Your task to perform on an android device: Go to notification settings Image 0: 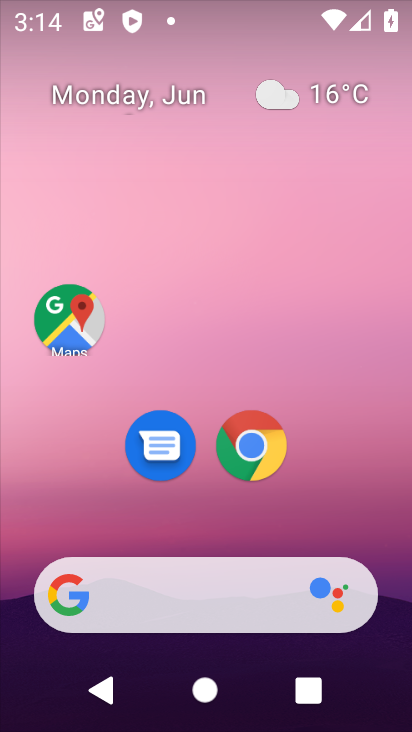
Step 0: drag from (201, 524) to (194, 196)
Your task to perform on an android device: Go to notification settings Image 1: 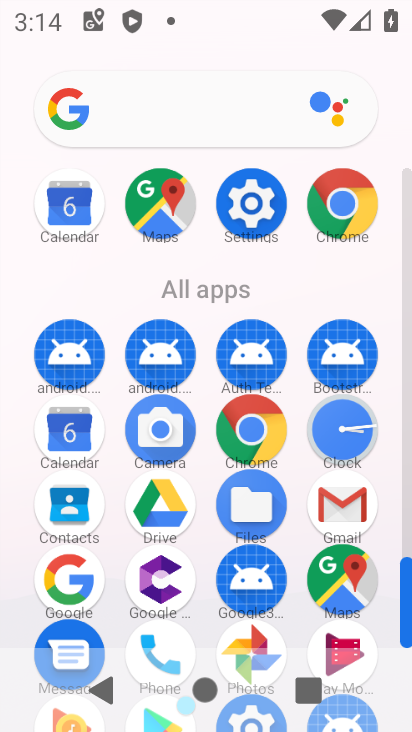
Step 1: click (238, 200)
Your task to perform on an android device: Go to notification settings Image 2: 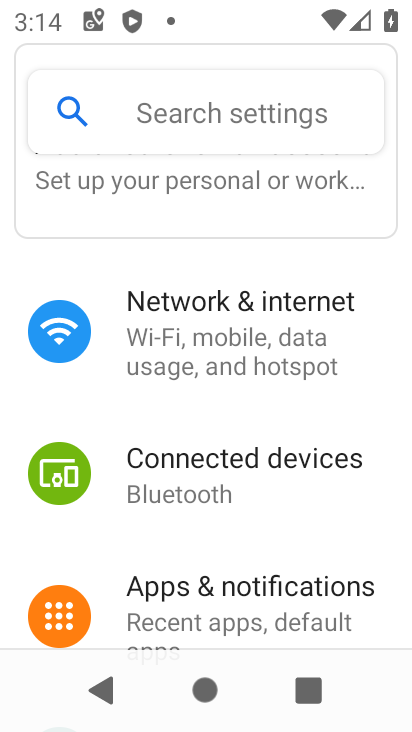
Step 2: click (238, 609)
Your task to perform on an android device: Go to notification settings Image 3: 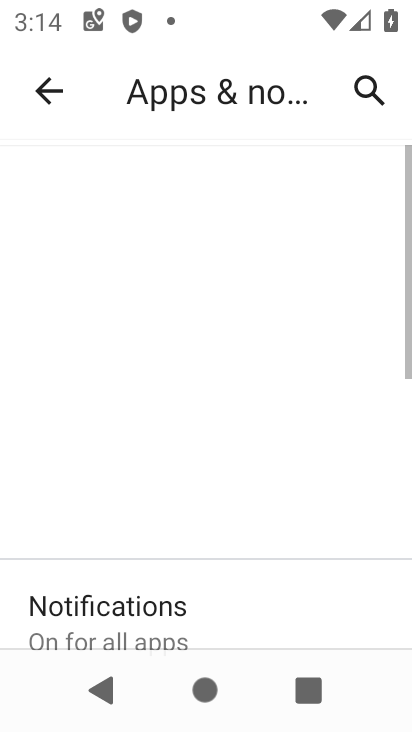
Step 3: click (181, 615)
Your task to perform on an android device: Go to notification settings Image 4: 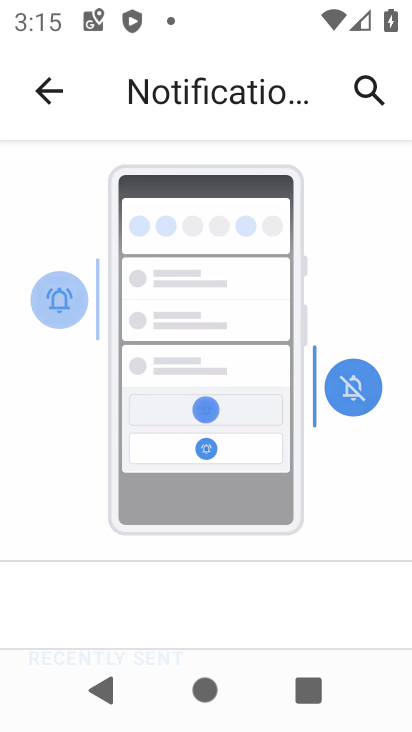
Step 4: task complete